Your task to perform on an android device: turn off translation in the chrome app Image 0: 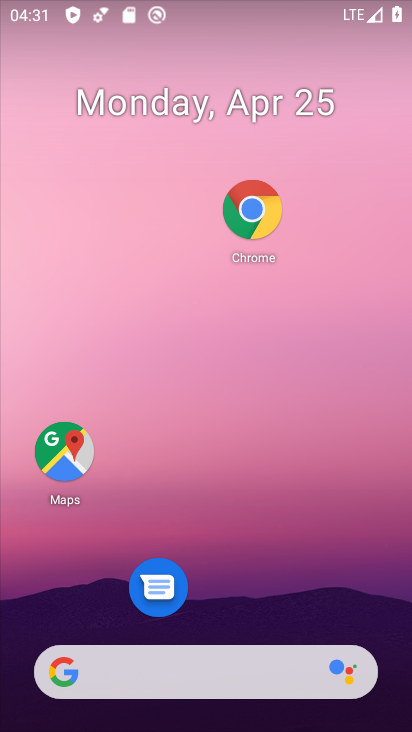
Step 0: drag from (336, 625) to (326, 40)
Your task to perform on an android device: turn off translation in the chrome app Image 1: 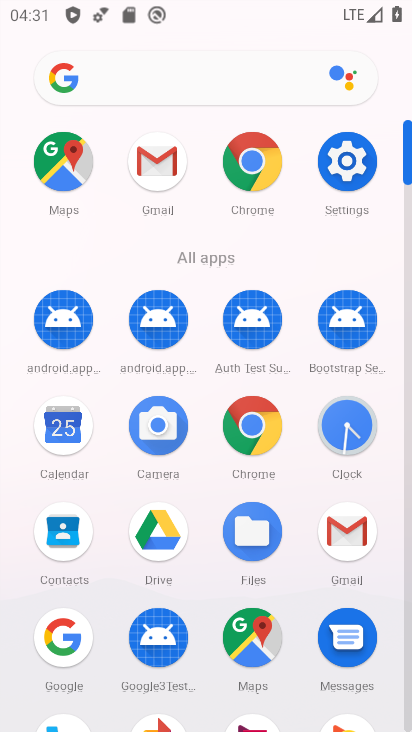
Step 1: click (251, 188)
Your task to perform on an android device: turn off translation in the chrome app Image 2: 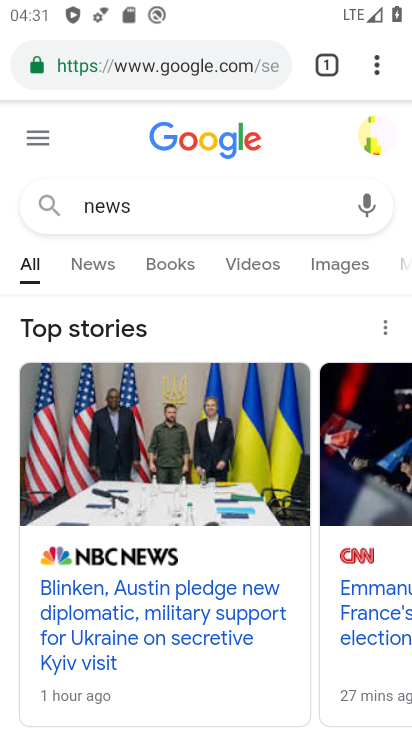
Step 2: drag from (371, 91) to (211, 650)
Your task to perform on an android device: turn off translation in the chrome app Image 3: 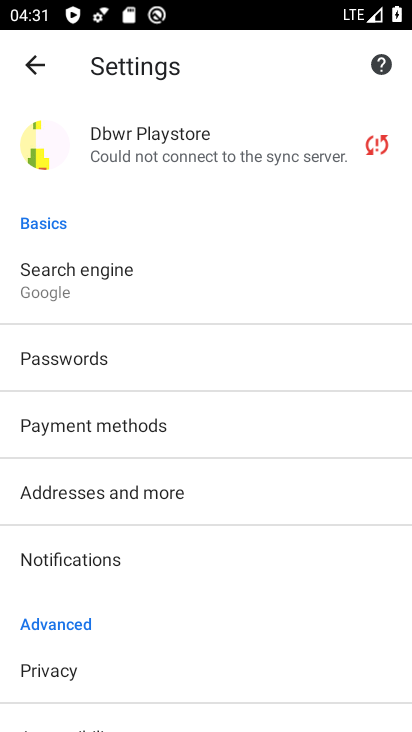
Step 3: drag from (223, 653) to (229, 284)
Your task to perform on an android device: turn off translation in the chrome app Image 4: 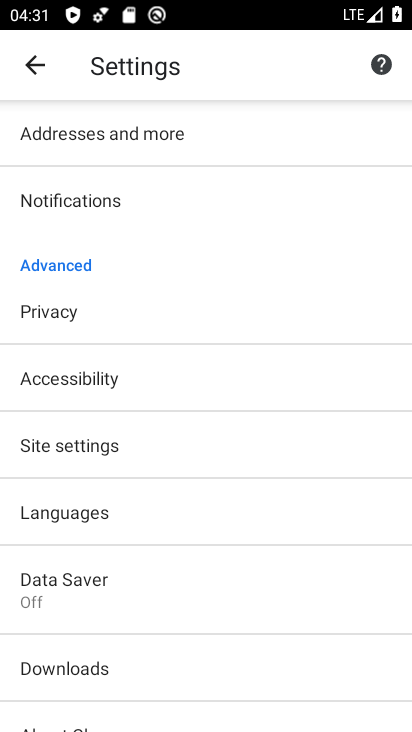
Step 4: click (213, 515)
Your task to perform on an android device: turn off translation in the chrome app Image 5: 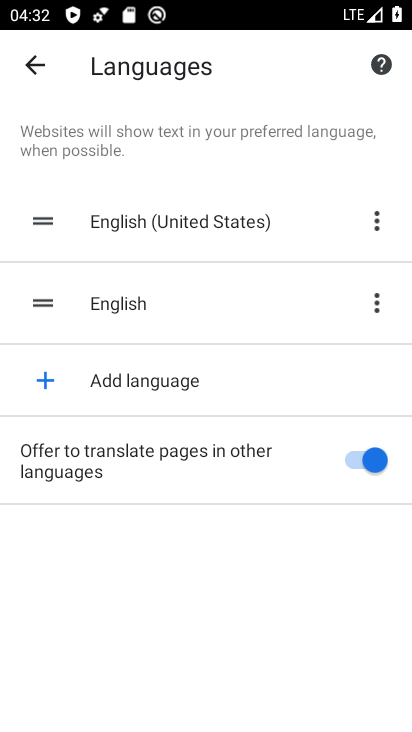
Step 5: click (368, 459)
Your task to perform on an android device: turn off translation in the chrome app Image 6: 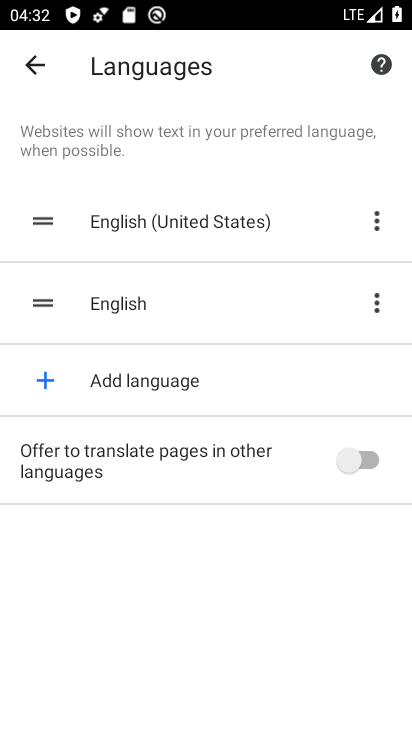
Step 6: task complete